Your task to perform on an android device: Do I have any events this weekend? Image 0: 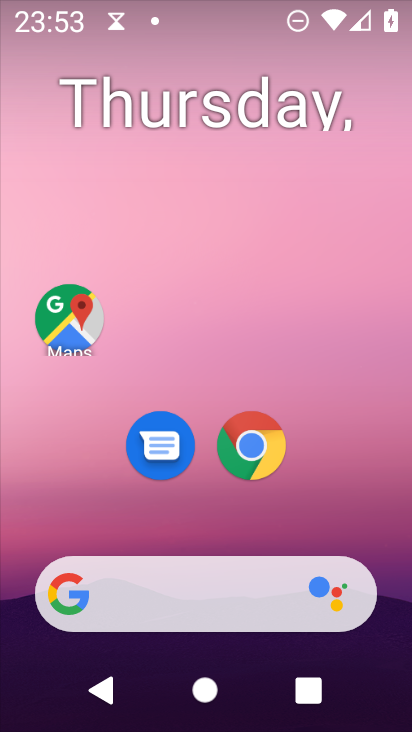
Step 0: drag from (230, 731) to (226, 89)
Your task to perform on an android device: Do I have any events this weekend? Image 1: 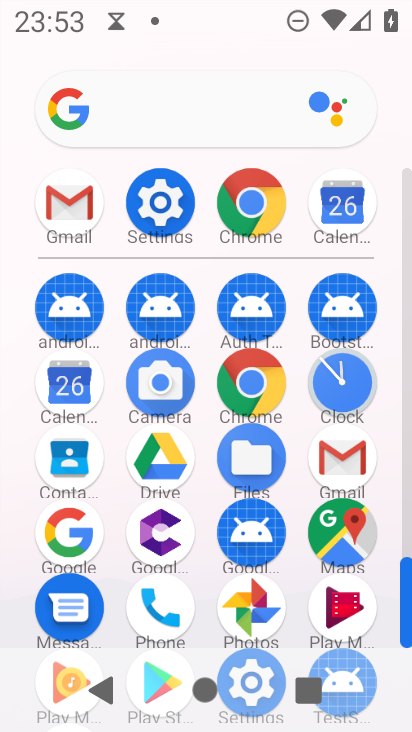
Step 1: click (61, 395)
Your task to perform on an android device: Do I have any events this weekend? Image 2: 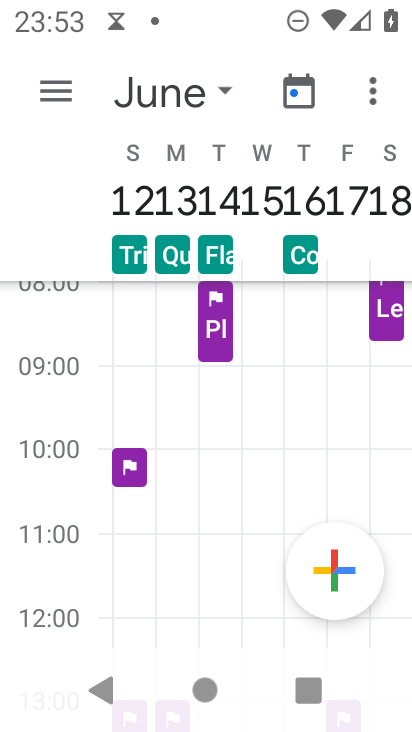
Step 2: click (223, 85)
Your task to perform on an android device: Do I have any events this weekend? Image 3: 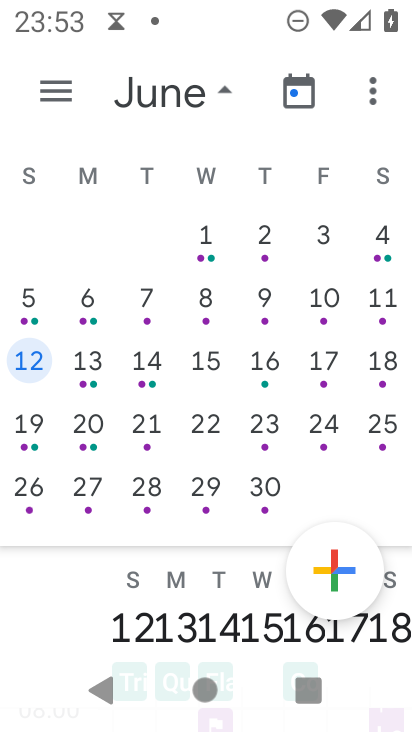
Step 3: drag from (47, 389) to (405, 334)
Your task to perform on an android device: Do I have any events this weekend? Image 4: 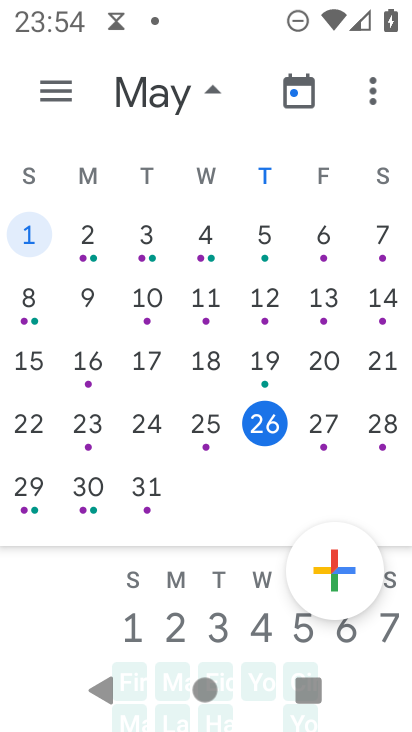
Step 4: click (58, 94)
Your task to perform on an android device: Do I have any events this weekend? Image 5: 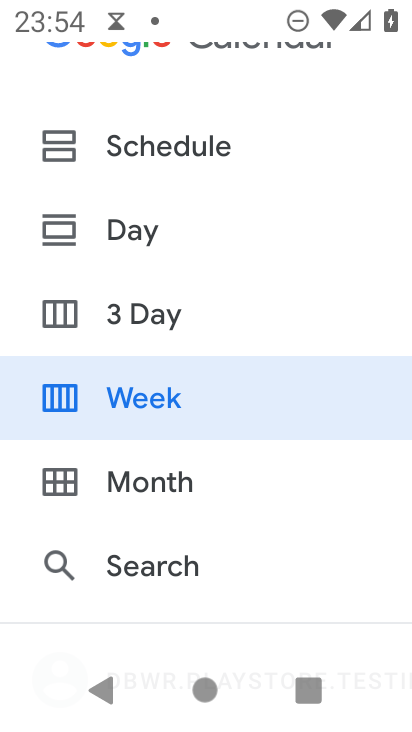
Step 5: drag from (156, 595) to (155, 169)
Your task to perform on an android device: Do I have any events this weekend? Image 6: 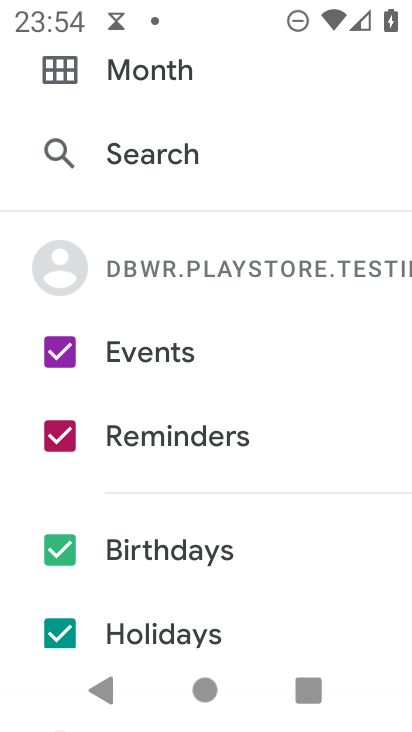
Step 6: click (69, 628)
Your task to perform on an android device: Do I have any events this weekend? Image 7: 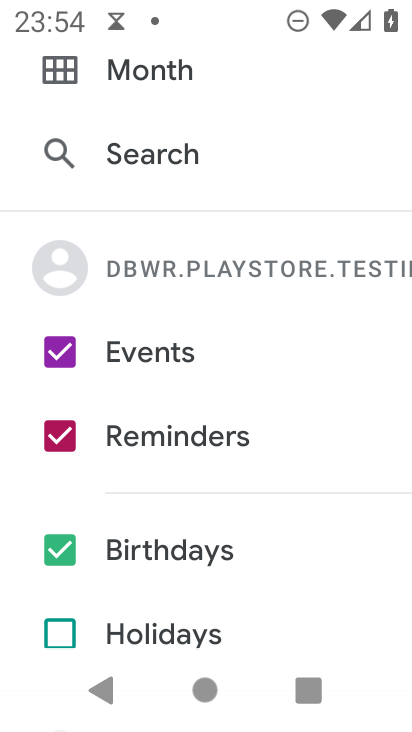
Step 7: click (58, 555)
Your task to perform on an android device: Do I have any events this weekend? Image 8: 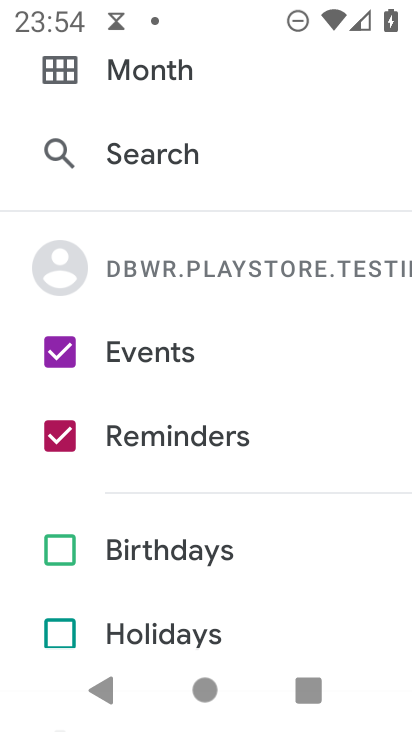
Step 8: click (52, 434)
Your task to perform on an android device: Do I have any events this weekend? Image 9: 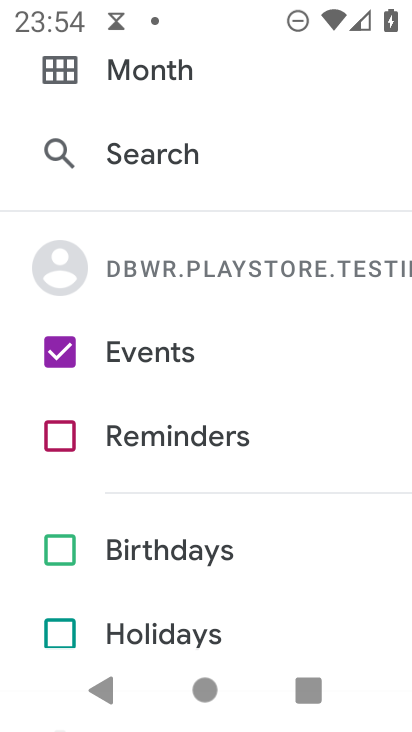
Step 9: drag from (302, 101) to (306, 392)
Your task to perform on an android device: Do I have any events this weekend? Image 10: 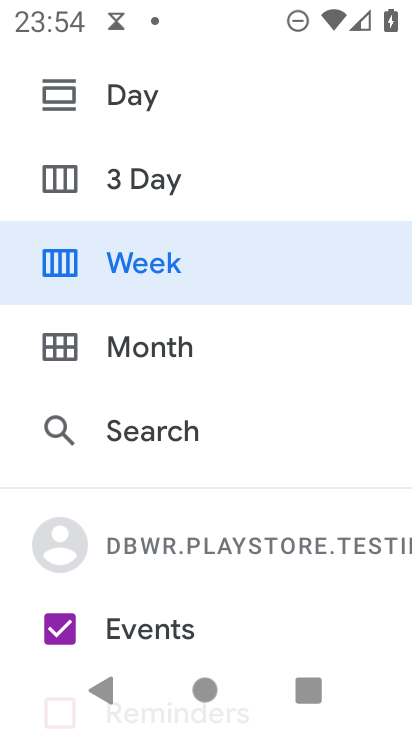
Step 10: click (174, 259)
Your task to perform on an android device: Do I have any events this weekend? Image 11: 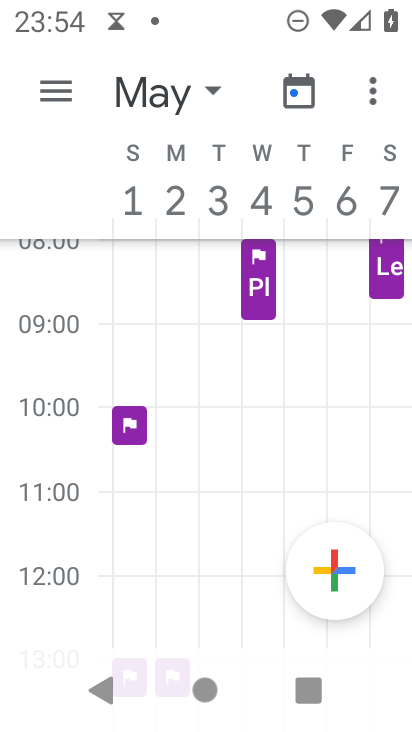
Step 11: click (385, 189)
Your task to perform on an android device: Do I have any events this weekend? Image 12: 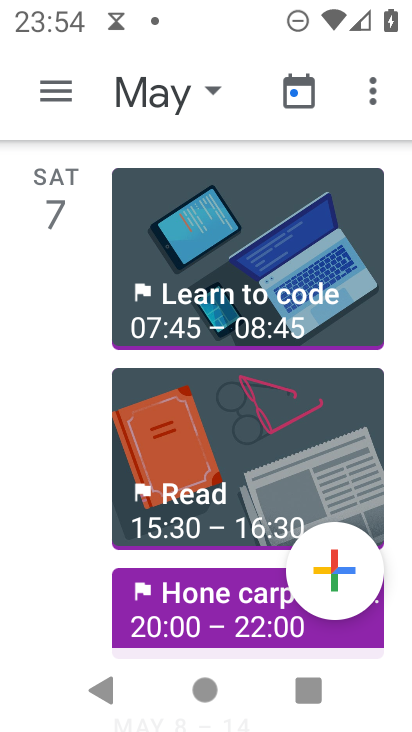
Step 12: task complete